Your task to perform on an android device: Open Youtube and go to "Your channel" Image 0: 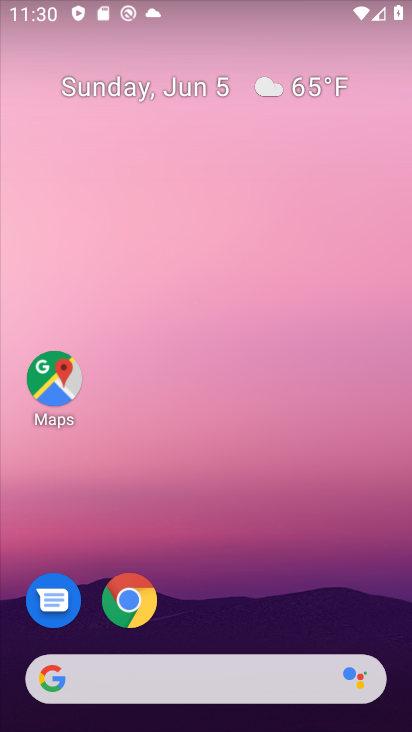
Step 0: drag from (408, 635) to (316, 128)
Your task to perform on an android device: Open Youtube and go to "Your channel" Image 1: 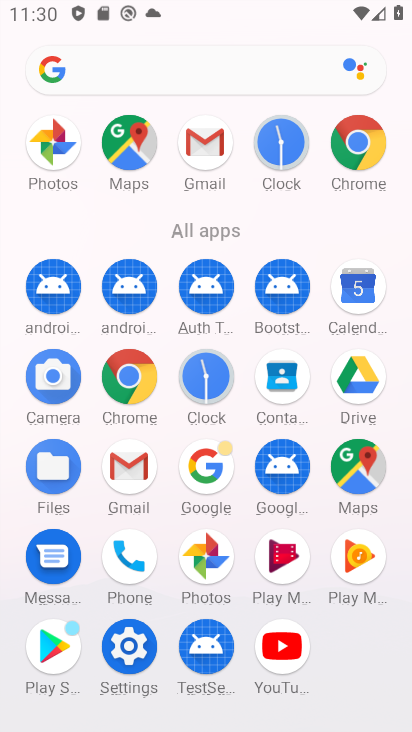
Step 1: click (260, 647)
Your task to perform on an android device: Open Youtube and go to "Your channel" Image 2: 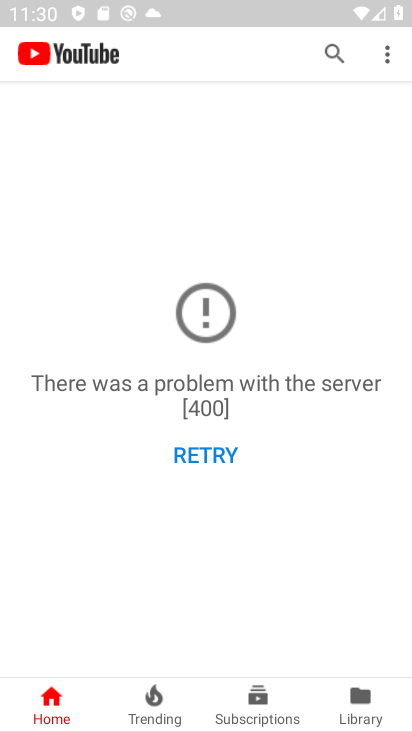
Step 2: task complete